Your task to perform on an android device: empty trash in the gmail app Image 0: 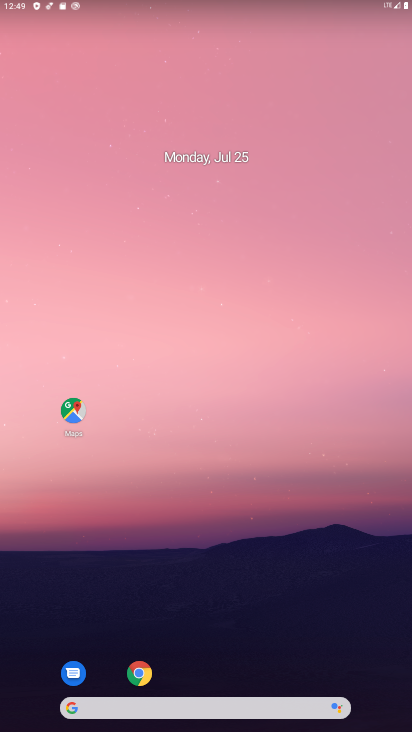
Step 0: drag from (155, 639) to (242, 66)
Your task to perform on an android device: empty trash in the gmail app Image 1: 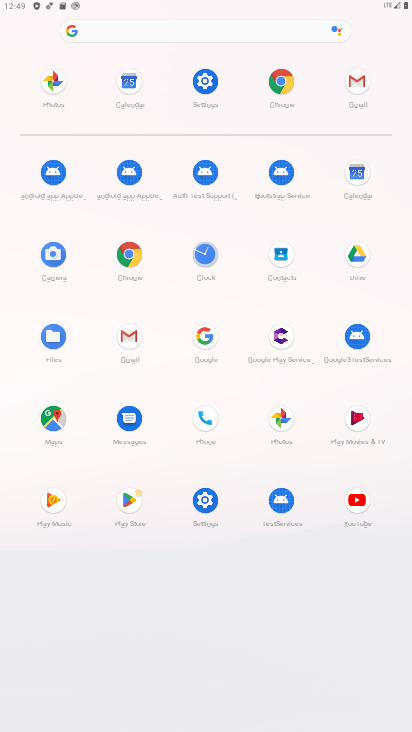
Step 1: click (359, 80)
Your task to perform on an android device: empty trash in the gmail app Image 2: 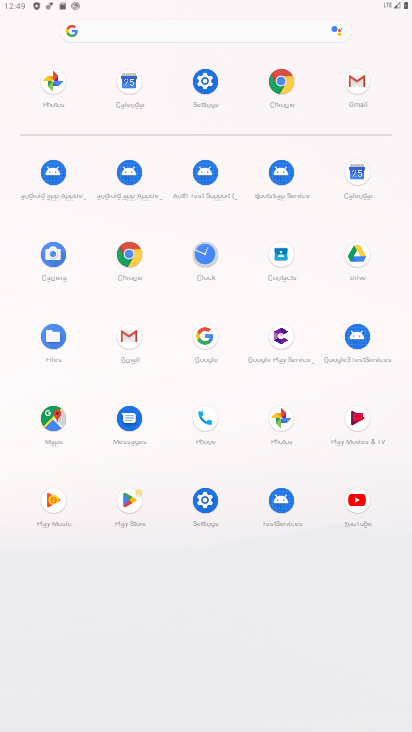
Step 2: click (359, 80)
Your task to perform on an android device: empty trash in the gmail app Image 3: 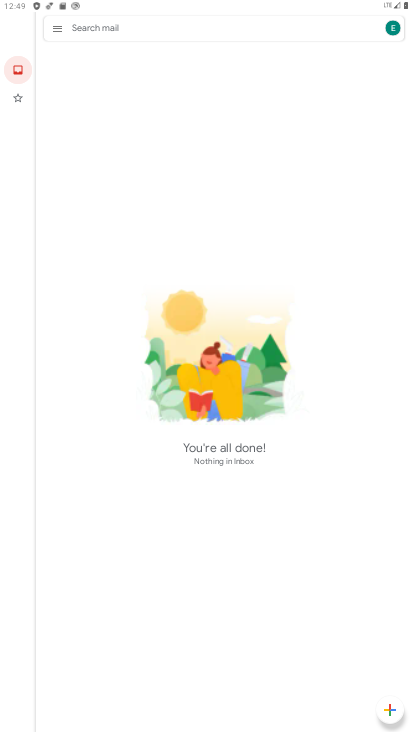
Step 3: click (56, 24)
Your task to perform on an android device: empty trash in the gmail app Image 4: 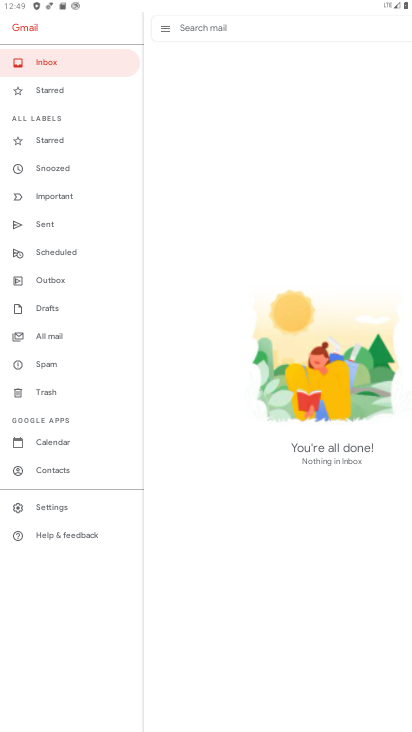
Step 4: click (42, 387)
Your task to perform on an android device: empty trash in the gmail app Image 5: 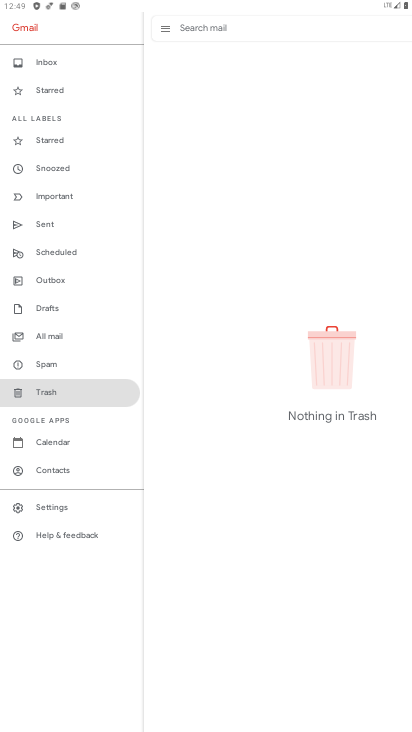
Step 5: task complete